Your task to perform on an android device: toggle notification dots Image 0: 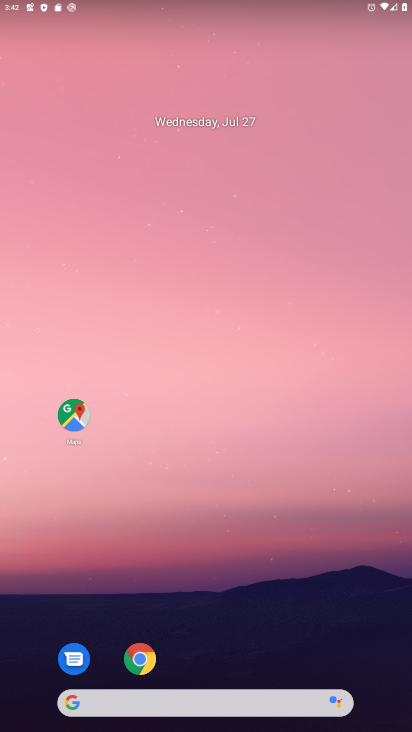
Step 0: drag from (259, 613) to (236, 119)
Your task to perform on an android device: toggle notification dots Image 1: 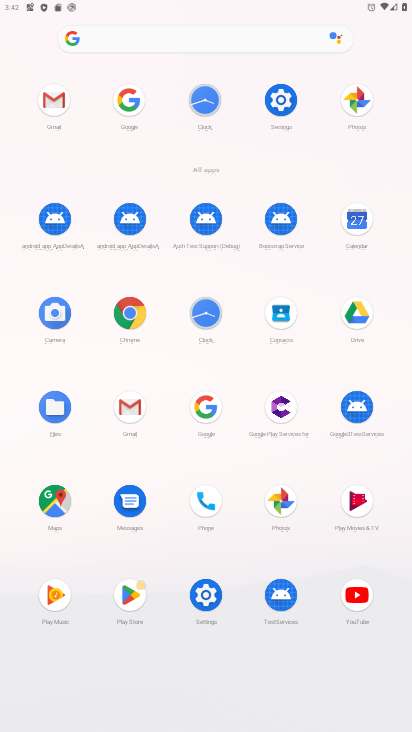
Step 1: click (285, 94)
Your task to perform on an android device: toggle notification dots Image 2: 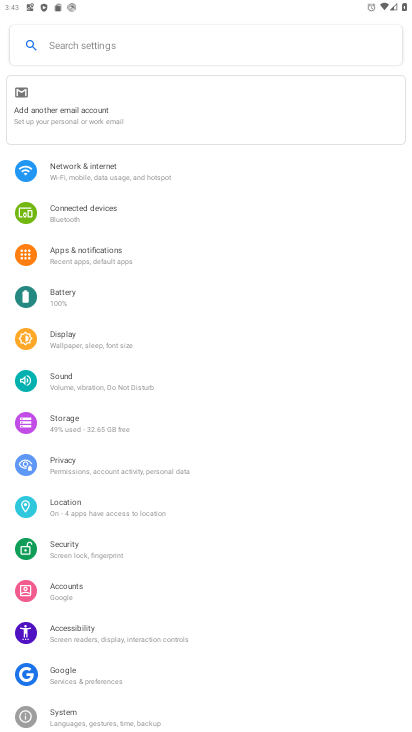
Step 2: click (86, 253)
Your task to perform on an android device: toggle notification dots Image 3: 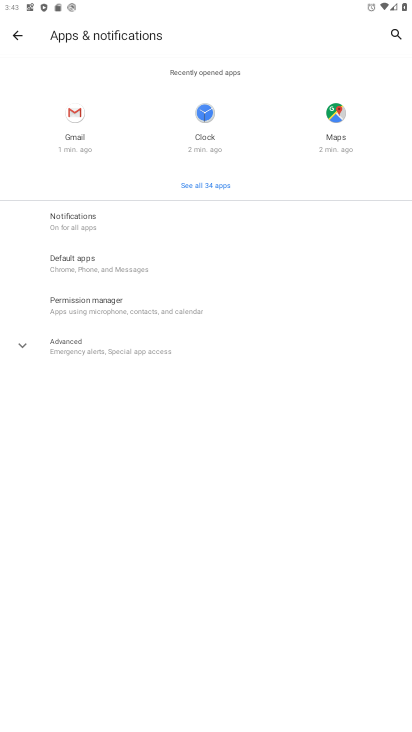
Step 3: click (181, 214)
Your task to perform on an android device: toggle notification dots Image 4: 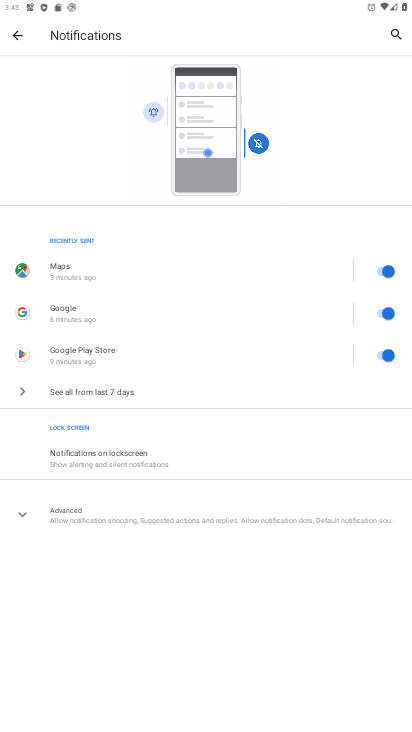
Step 4: click (101, 524)
Your task to perform on an android device: toggle notification dots Image 5: 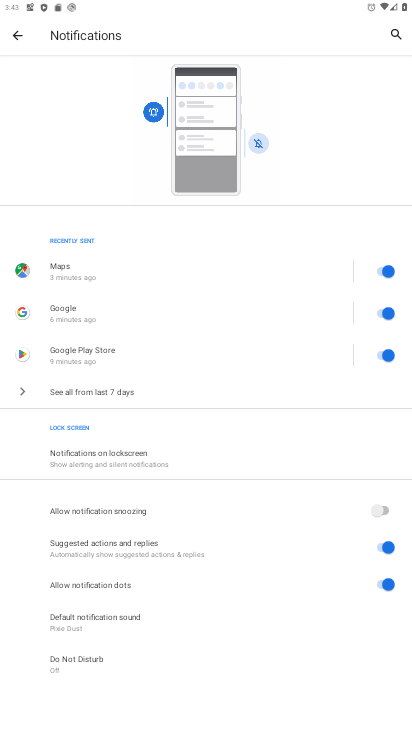
Step 5: click (382, 591)
Your task to perform on an android device: toggle notification dots Image 6: 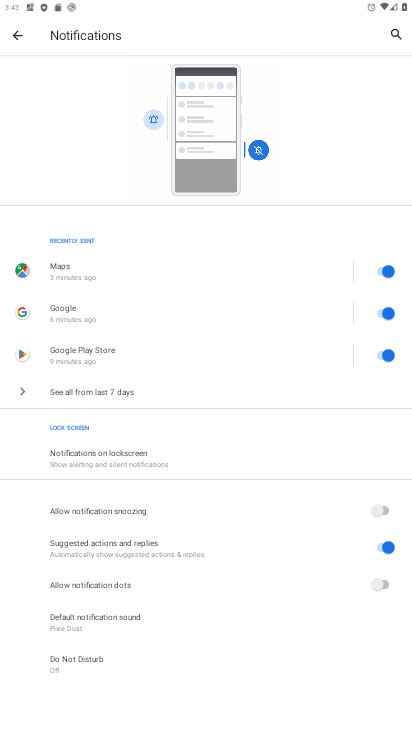
Step 6: task complete